Your task to perform on an android device: turn on javascript in the chrome app Image 0: 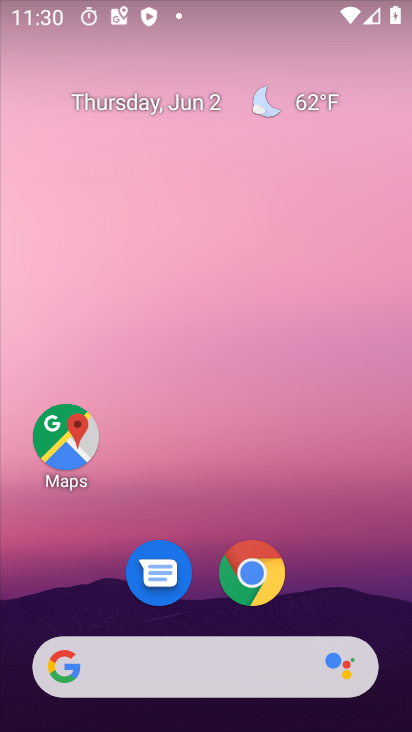
Step 0: drag from (270, 611) to (341, 183)
Your task to perform on an android device: turn on javascript in the chrome app Image 1: 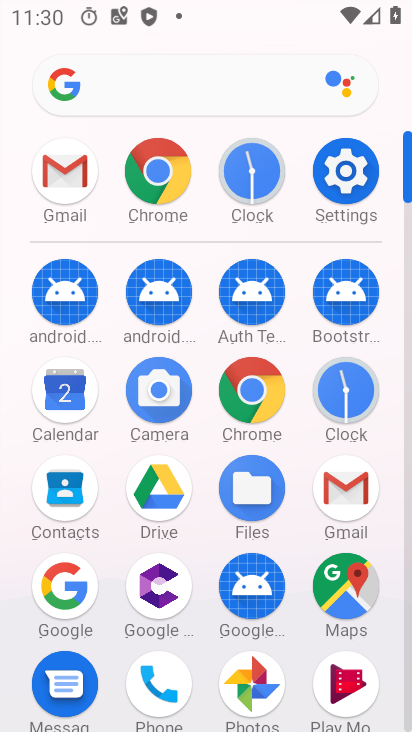
Step 1: click (269, 410)
Your task to perform on an android device: turn on javascript in the chrome app Image 2: 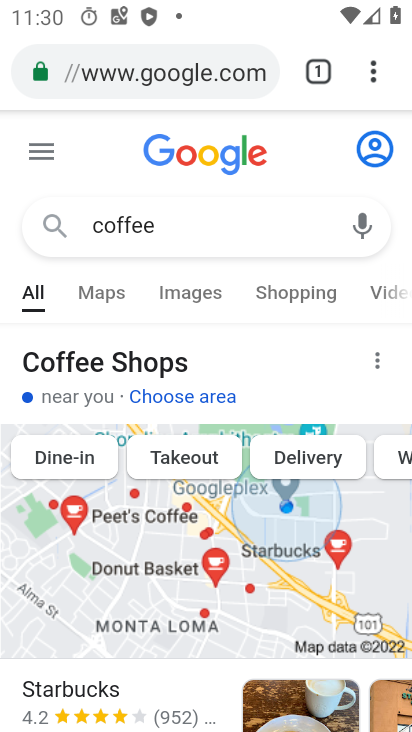
Step 2: drag from (373, 66) to (169, 572)
Your task to perform on an android device: turn on javascript in the chrome app Image 3: 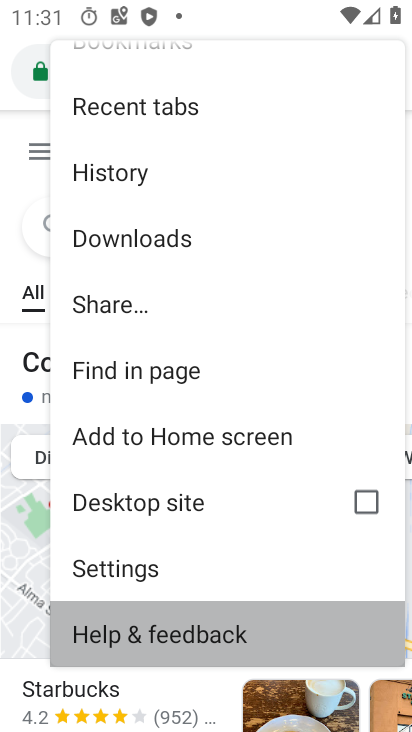
Step 3: click (166, 574)
Your task to perform on an android device: turn on javascript in the chrome app Image 4: 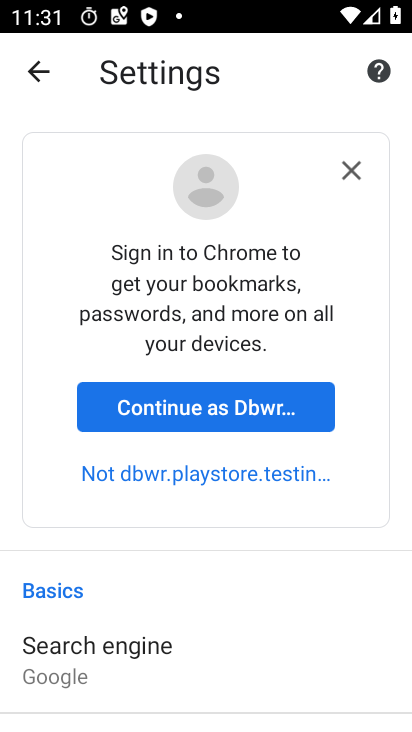
Step 4: drag from (286, 645) to (393, 44)
Your task to perform on an android device: turn on javascript in the chrome app Image 5: 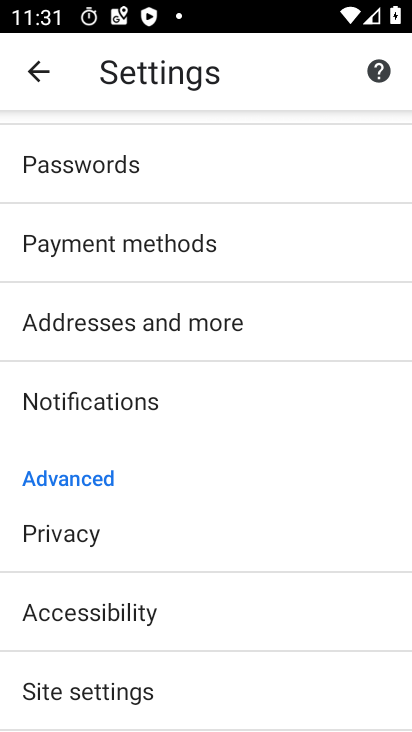
Step 5: click (140, 680)
Your task to perform on an android device: turn on javascript in the chrome app Image 6: 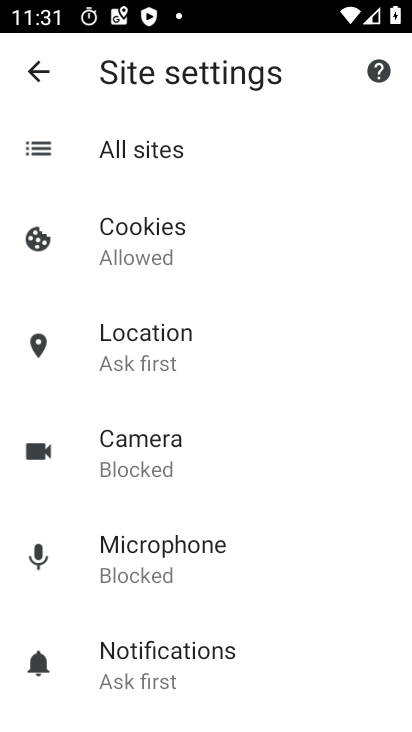
Step 6: drag from (184, 661) to (224, 358)
Your task to perform on an android device: turn on javascript in the chrome app Image 7: 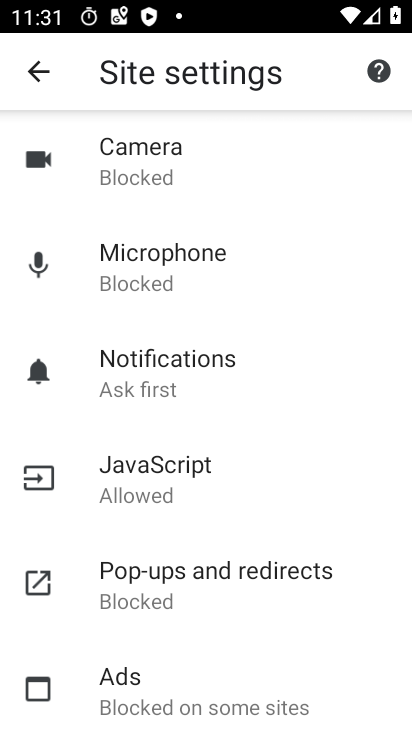
Step 7: click (191, 494)
Your task to perform on an android device: turn on javascript in the chrome app Image 8: 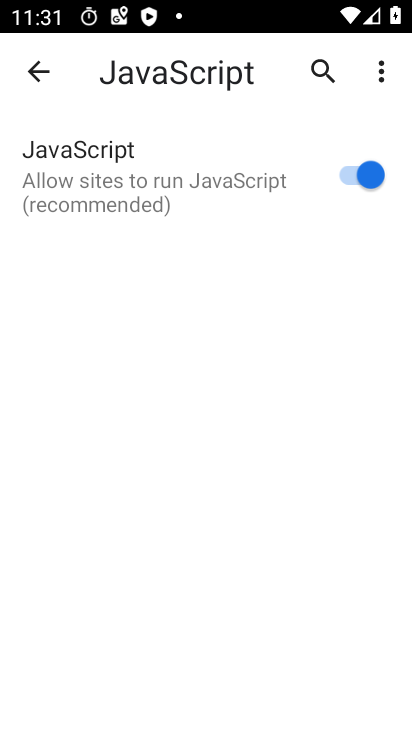
Step 8: task complete